Your task to perform on an android device: Open calendar and show me the second week of next month Image 0: 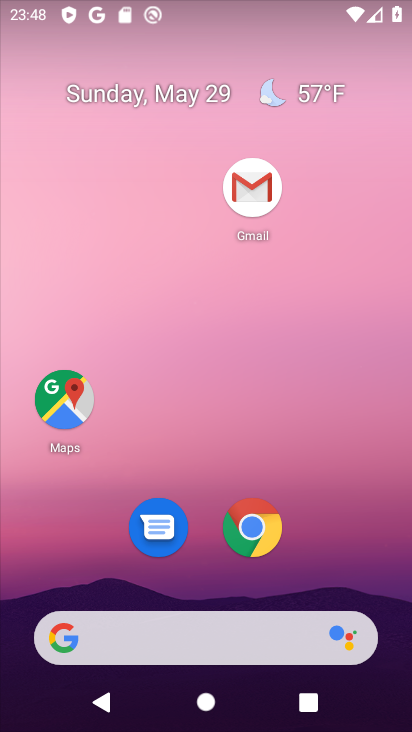
Step 0: drag from (327, 537) to (219, 105)
Your task to perform on an android device: Open calendar and show me the second week of next month Image 1: 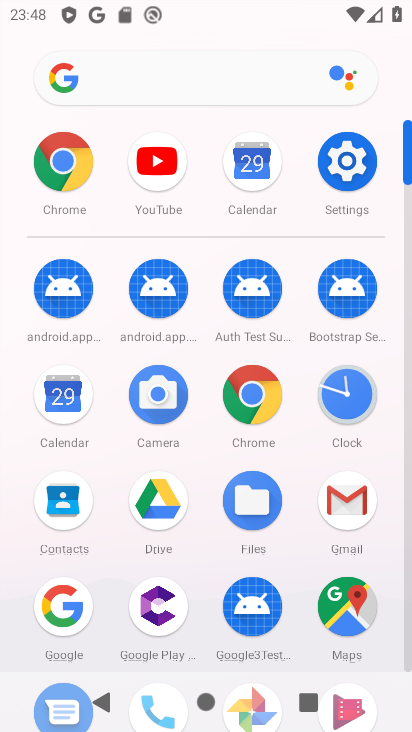
Step 1: click (63, 397)
Your task to perform on an android device: Open calendar and show me the second week of next month Image 2: 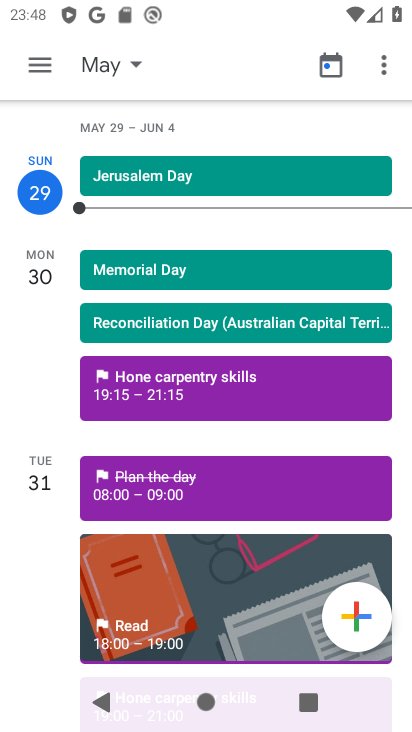
Step 2: click (134, 63)
Your task to perform on an android device: Open calendar and show me the second week of next month Image 3: 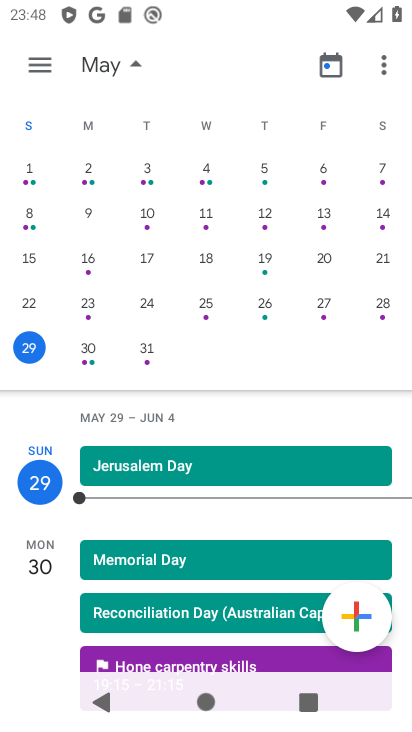
Step 3: drag from (363, 269) to (42, 280)
Your task to perform on an android device: Open calendar and show me the second week of next month Image 4: 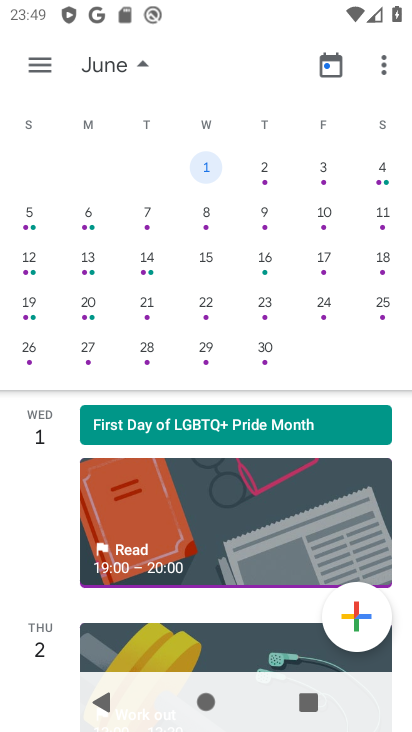
Step 4: click (87, 266)
Your task to perform on an android device: Open calendar and show me the second week of next month Image 5: 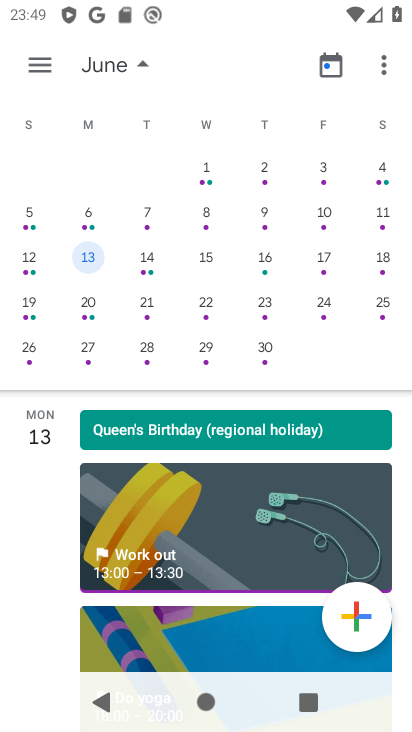
Step 5: click (39, 65)
Your task to perform on an android device: Open calendar and show me the second week of next month Image 6: 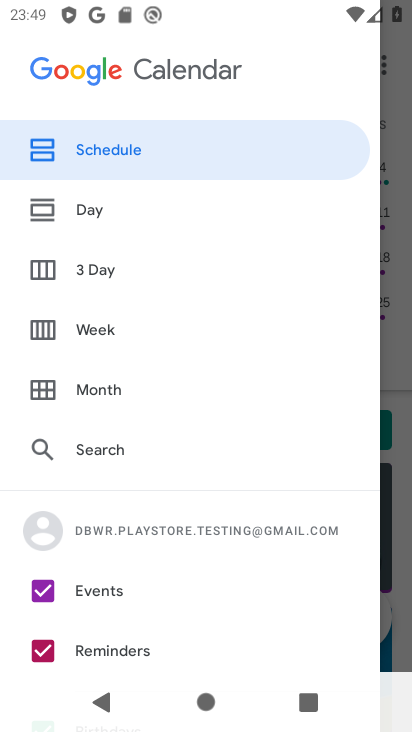
Step 6: click (78, 325)
Your task to perform on an android device: Open calendar and show me the second week of next month Image 7: 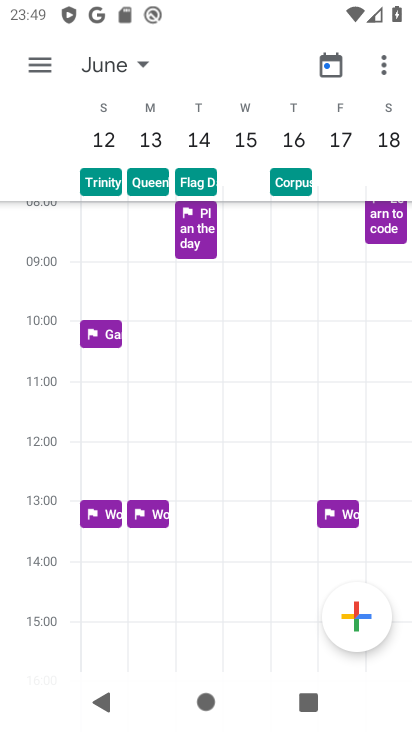
Step 7: task complete